Your task to perform on an android device: open a bookmark in the chrome app Image 0: 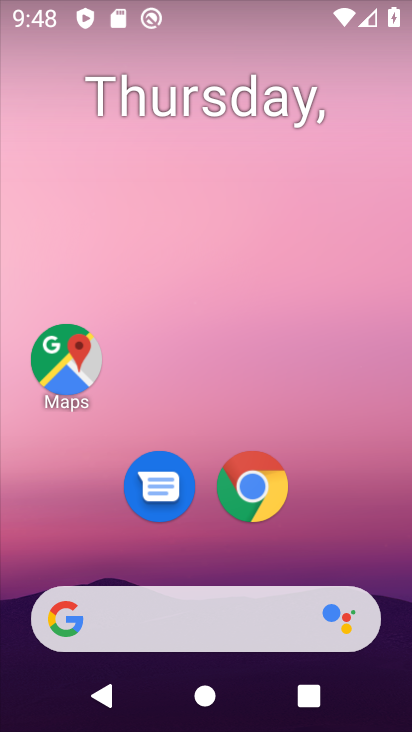
Step 0: click (253, 471)
Your task to perform on an android device: open a bookmark in the chrome app Image 1: 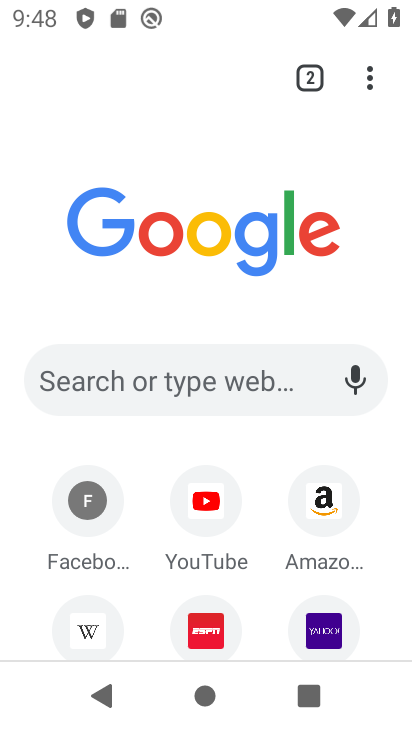
Step 1: task complete